Your task to perform on an android device: Go to Google maps Image 0: 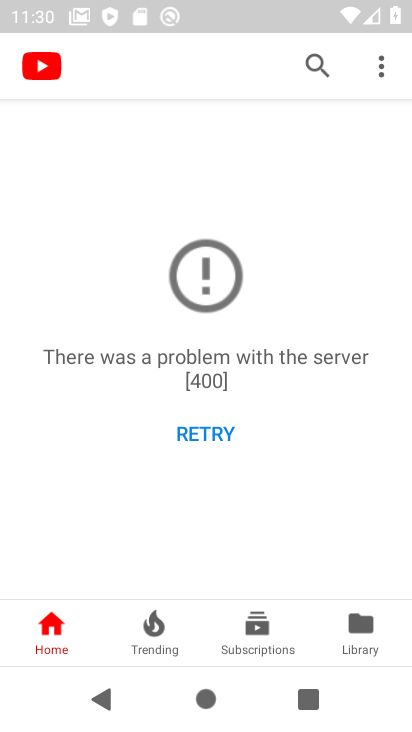
Step 0: press home button
Your task to perform on an android device: Go to Google maps Image 1: 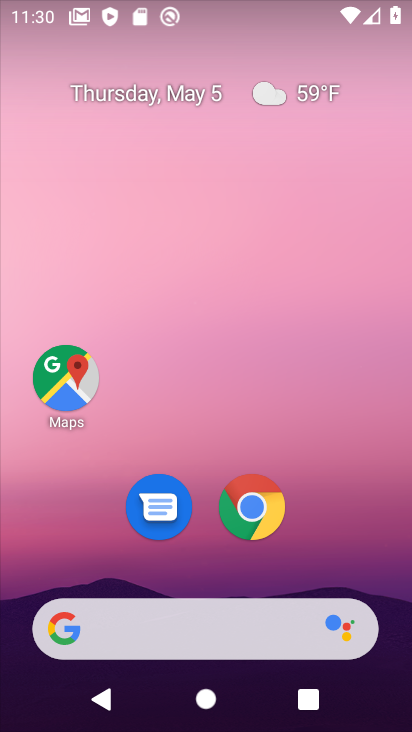
Step 1: click (66, 376)
Your task to perform on an android device: Go to Google maps Image 2: 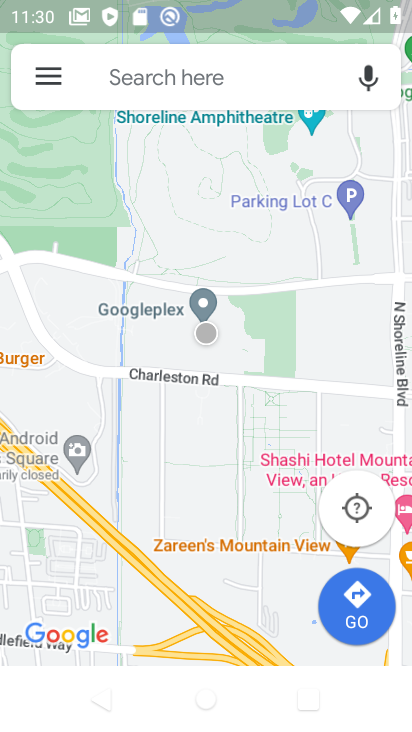
Step 2: task complete